Your task to perform on an android device: What is the news today? Image 0: 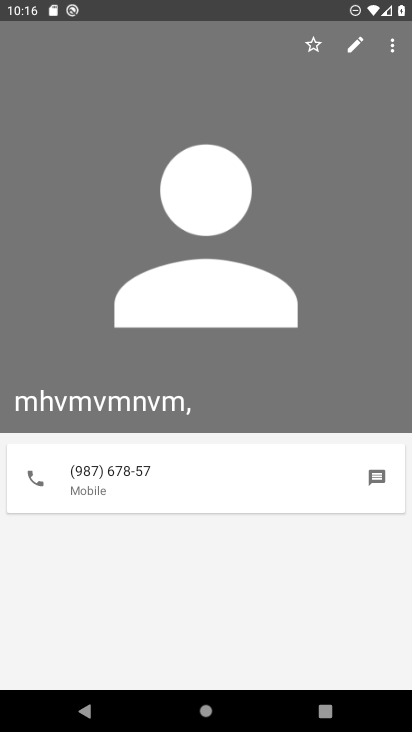
Step 0: press home button
Your task to perform on an android device: What is the news today? Image 1: 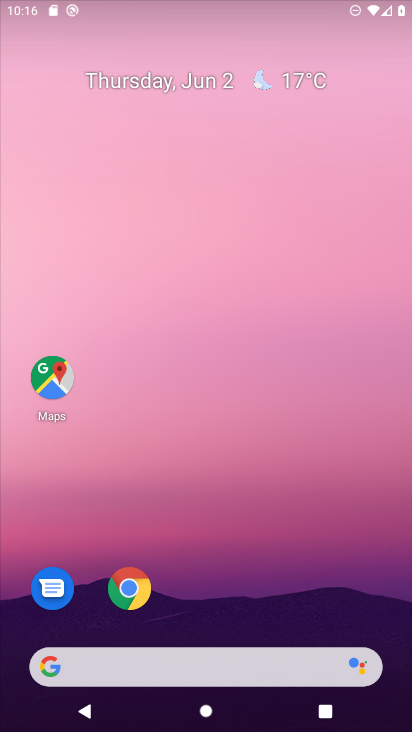
Step 1: drag from (213, 675) to (298, 139)
Your task to perform on an android device: What is the news today? Image 2: 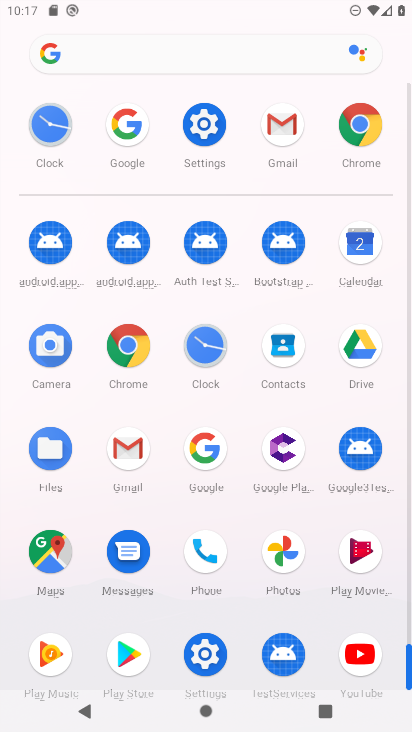
Step 2: click (216, 461)
Your task to perform on an android device: What is the news today? Image 3: 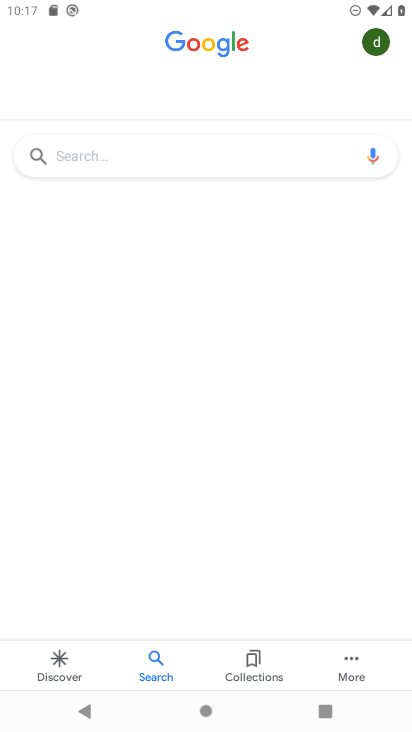
Step 3: click (206, 158)
Your task to perform on an android device: What is the news today? Image 4: 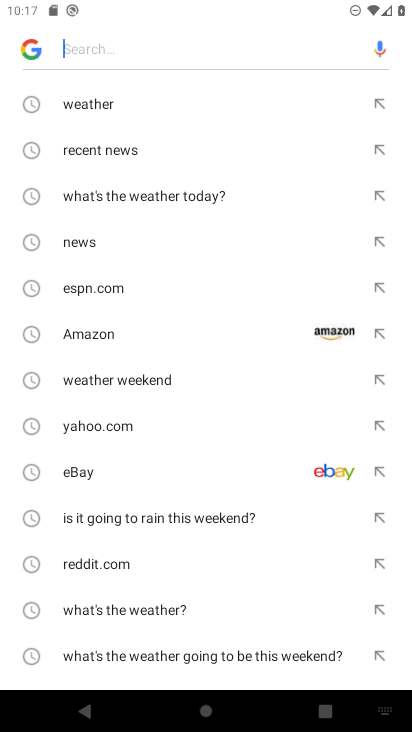
Step 4: click (198, 147)
Your task to perform on an android device: What is the news today? Image 5: 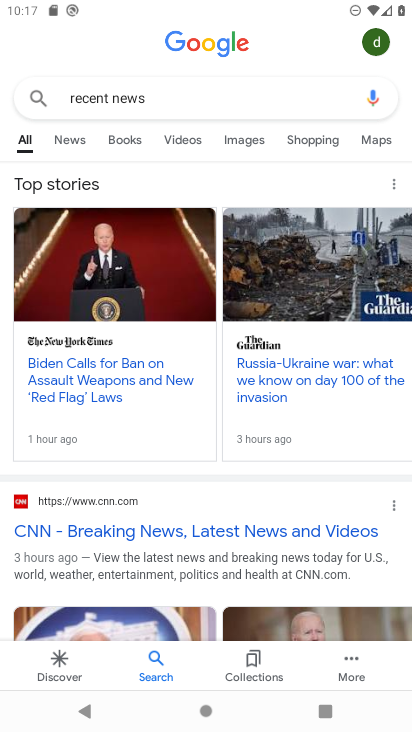
Step 5: click (82, 143)
Your task to perform on an android device: What is the news today? Image 6: 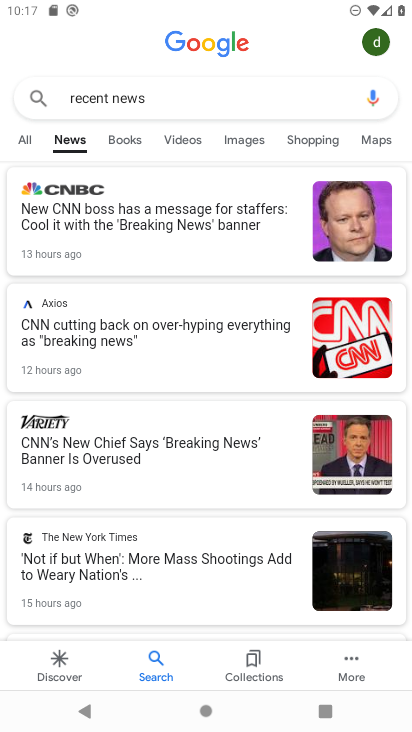
Step 6: task complete